Your task to perform on an android device: all mails in gmail Image 0: 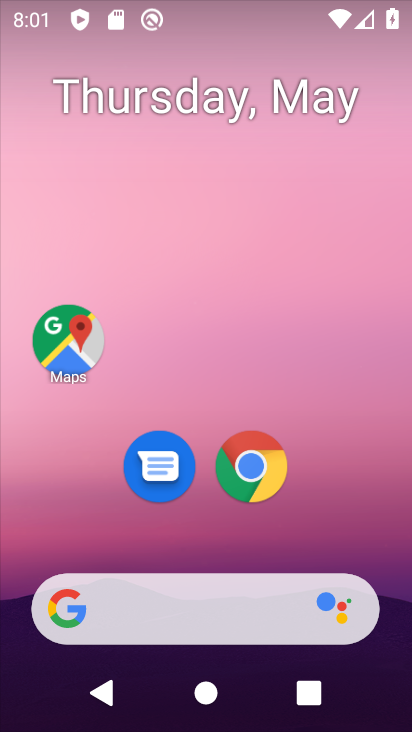
Step 0: drag from (233, 551) to (165, 23)
Your task to perform on an android device: all mails in gmail Image 1: 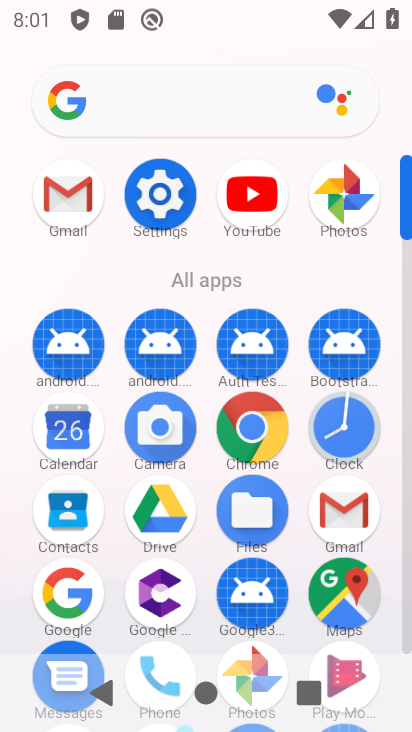
Step 1: click (346, 524)
Your task to perform on an android device: all mails in gmail Image 2: 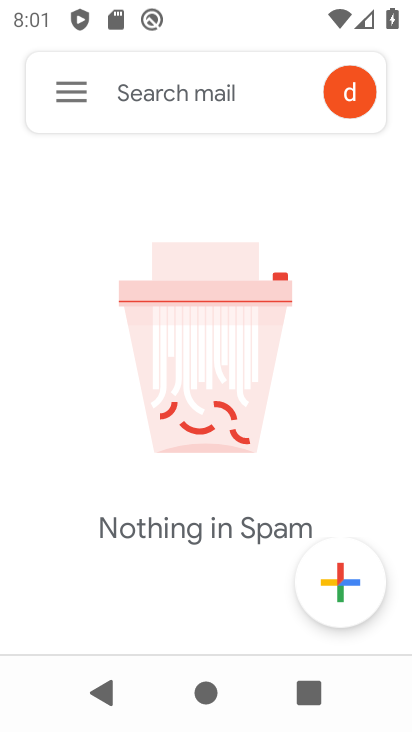
Step 2: click (73, 92)
Your task to perform on an android device: all mails in gmail Image 3: 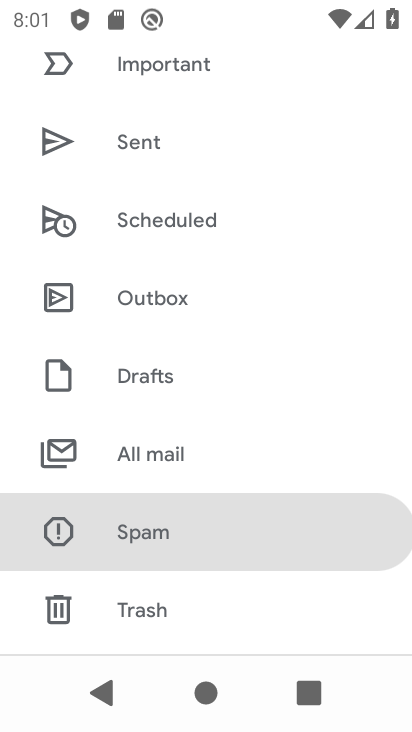
Step 3: click (179, 451)
Your task to perform on an android device: all mails in gmail Image 4: 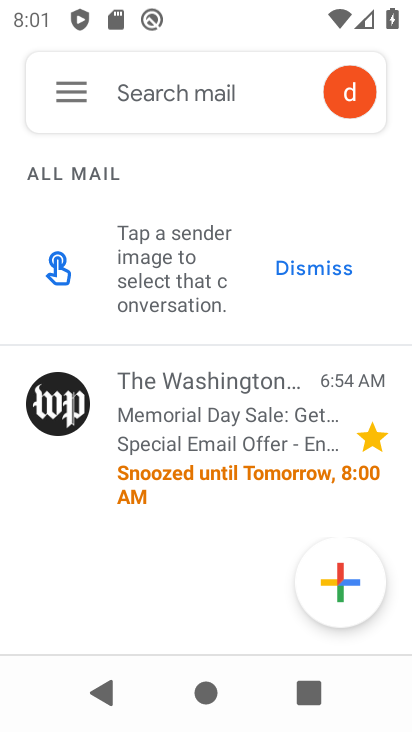
Step 4: task complete